Your task to perform on an android device: Open the calendar app, open the side menu, and click the "Day" option Image 0: 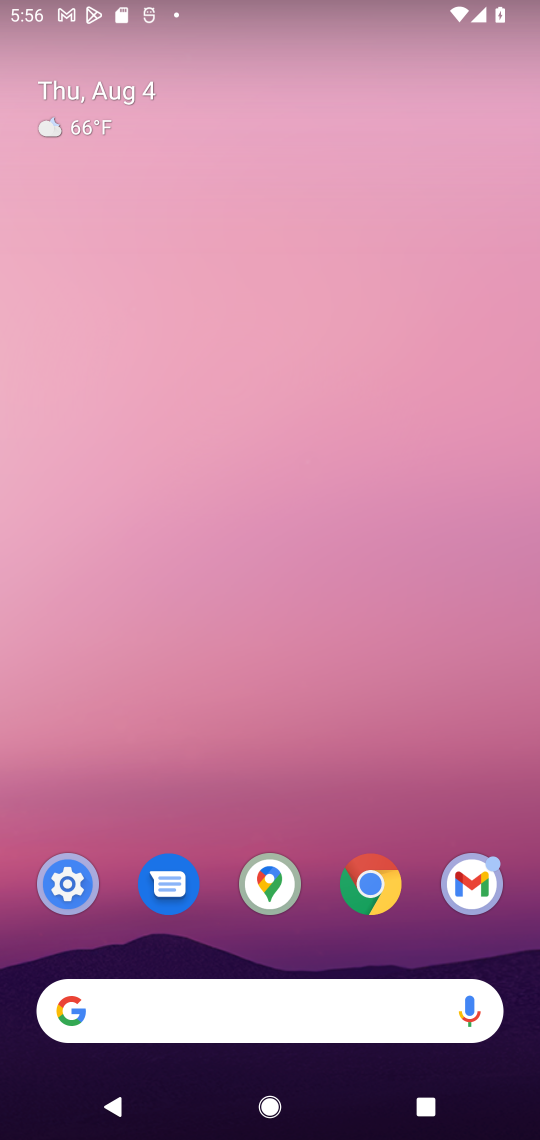
Step 0: drag from (205, 934) to (214, 228)
Your task to perform on an android device: Open the calendar app, open the side menu, and click the "Day" option Image 1: 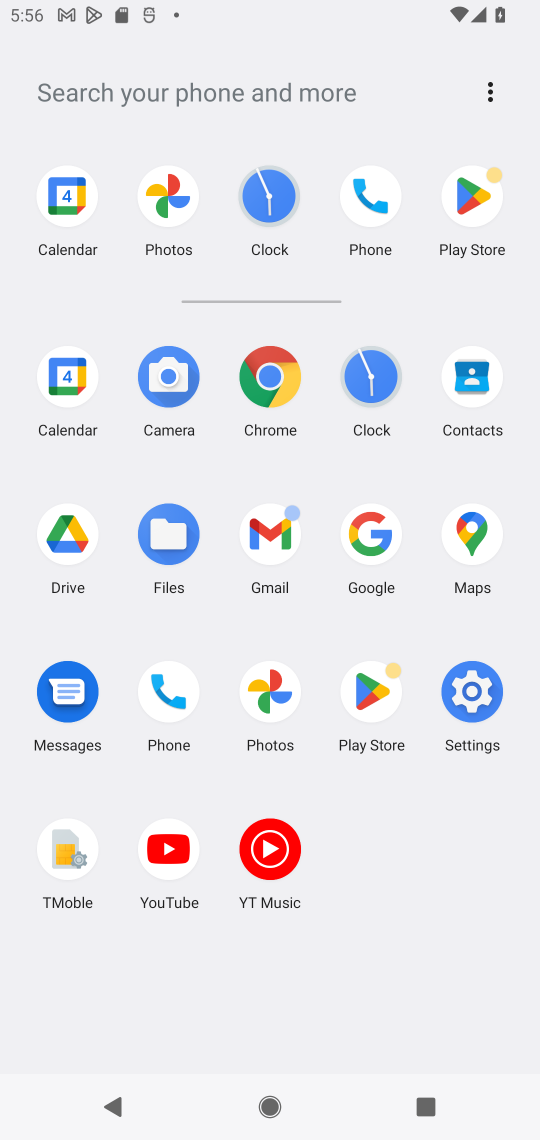
Step 1: click (88, 245)
Your task to perform on an android device: Open the calendar app, open the side menu, and click the "Day" option Image 2: 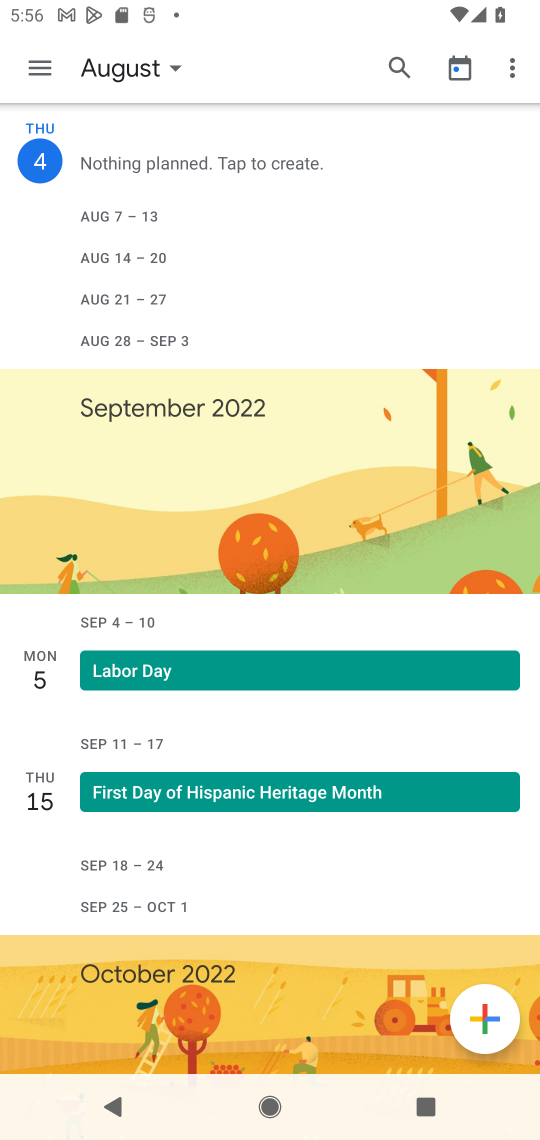
Step 2: click (40, 58)
Your task to perform on an android device: Open the calendar app, open the side menu, and click the "Day" option Image 3: 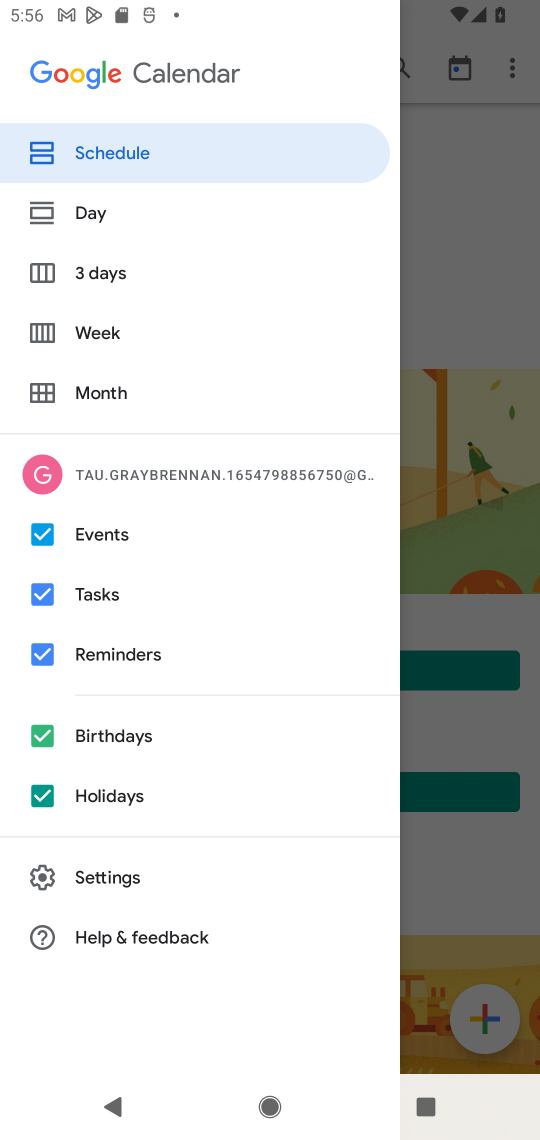
Step 3: click (149, 228)
Your task to perform on an android device: Open the calendar app, open the side menu, and click the "Day" option Image 4: 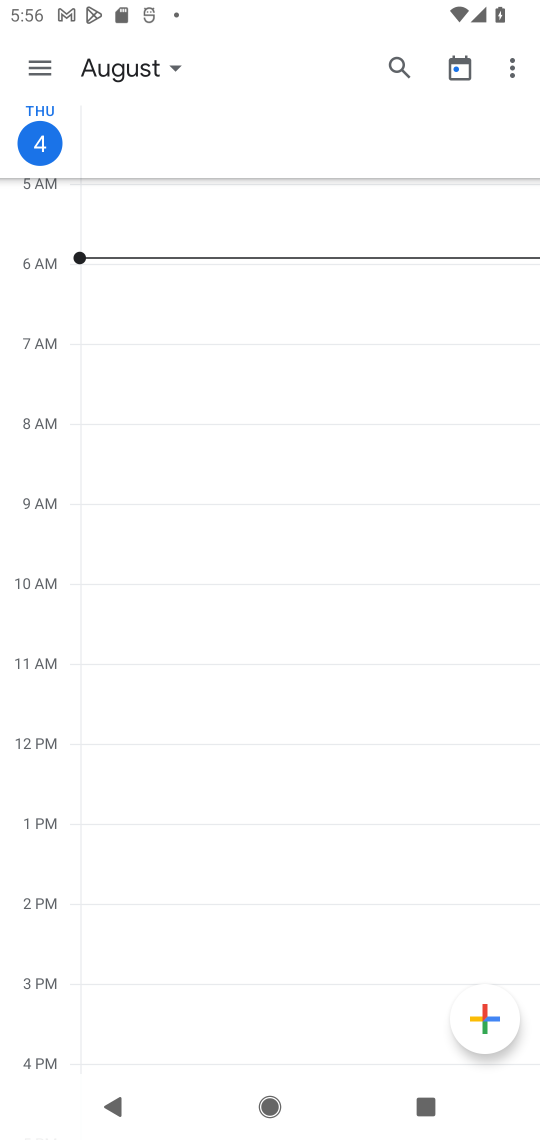
Step 4: task complete